Your task to perform on an android device: What is the recent news? Image 0: 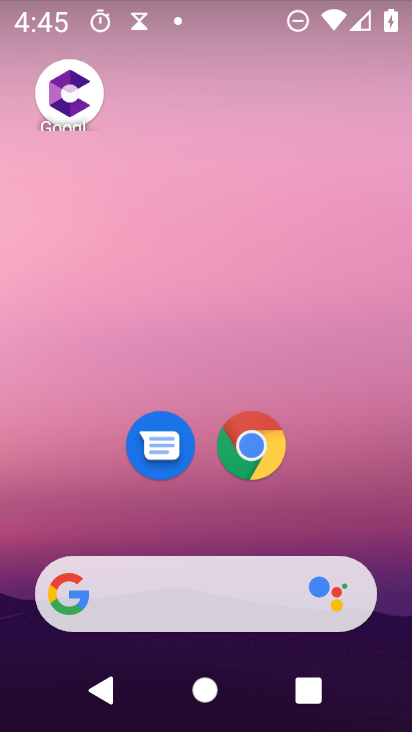
Step 0: drag from (190, 367) to (226, 16)
Your task to perform on an android device: What is the recent news? Image 1: 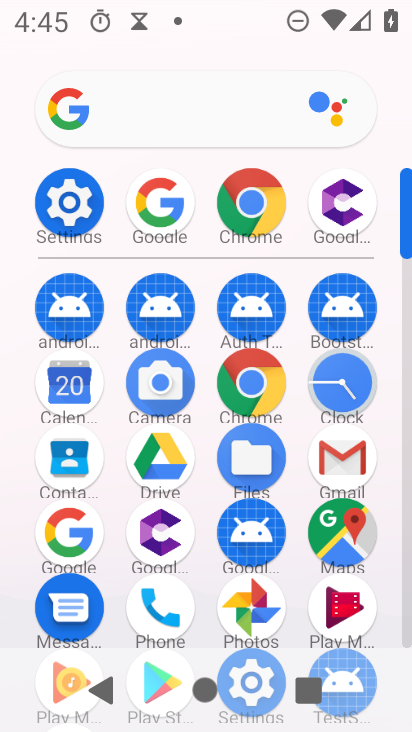
Step 1: click (155, 199)
Your task to perform on an android device: What is the recent news? Image 2: 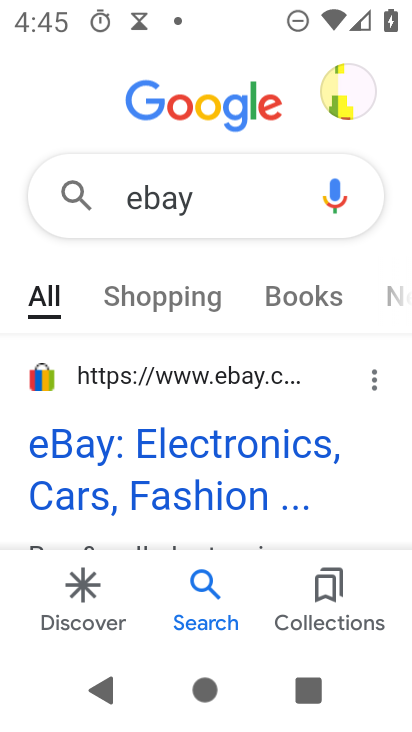
Step 2: click (216, 198)
Your task to perform on an android device: What is the recent news? Image 3: 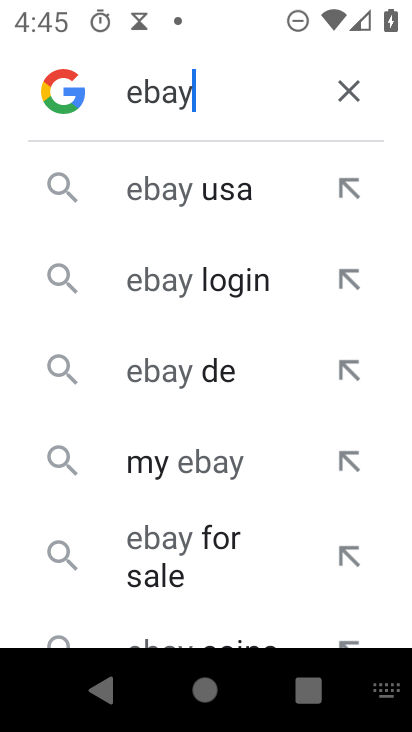
Step 3: click (349, 98)
Your task to perform on an android device: What is the recent news? Image 4: 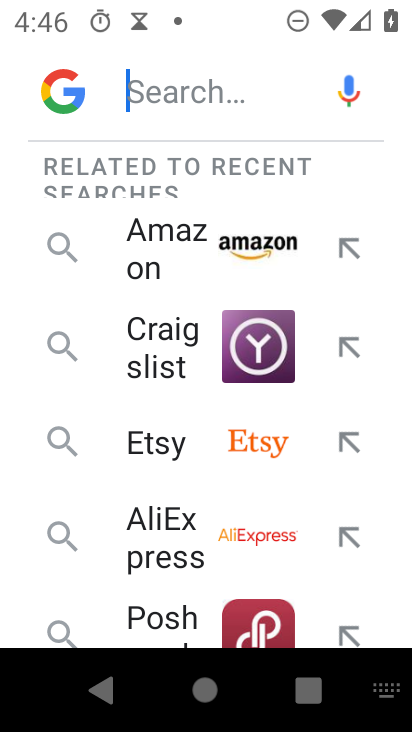
Step 4: type "recent news"
Your task to perform on an android device: What is the recent news? Image 5: 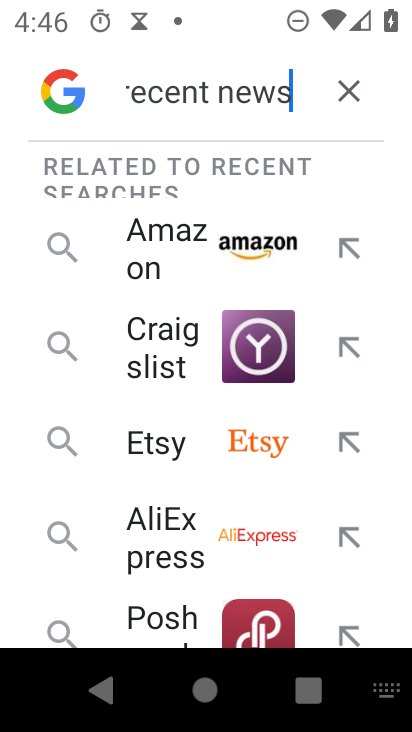
Step 5: type ""
Your task to perform on an android device: What is the recent news? Image 6: 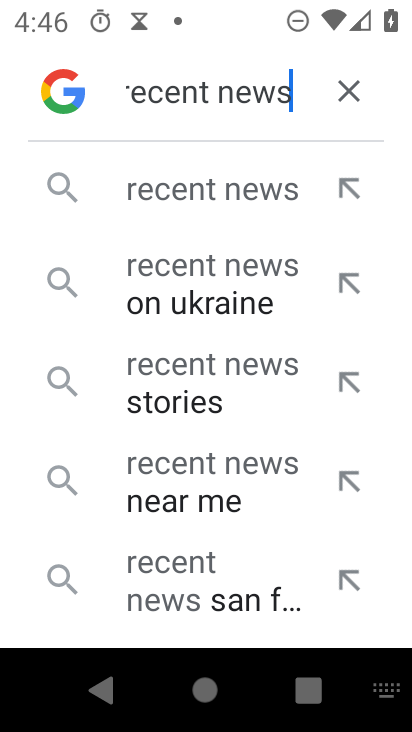
Step 6: click (249, 189)
Your task to perform on an android device: What is the recent news? Image 7: 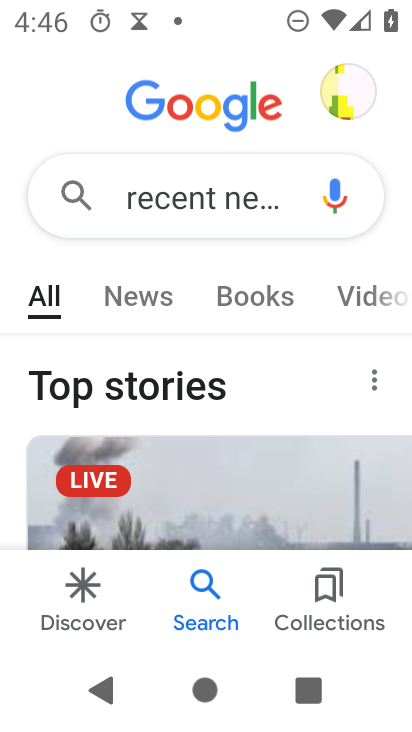
Step 7: task complete